Your task to perform on an android device: Add acer predator to the cart on costco.com, then select checkout. Image 0: 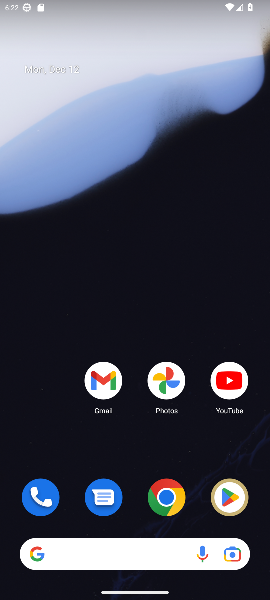
Step 0: press home button
Your task to perform on an android device: Add acer predator to the cart on costco.com, then select checkout. Image 1: 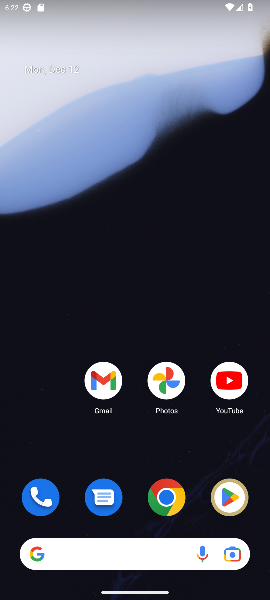
Step 1: click (55, 551)
Your task to perform on an android device: Add acer predator to the cart on costco.com, then select checkout. Image 2: 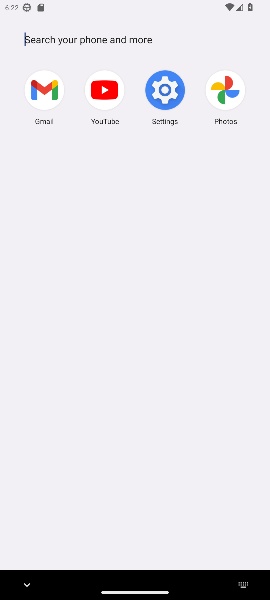
Step 2: press home button
Your task to perform on an android device: Add acer predator to the cart on costco.com, then select checkout. Image 3: 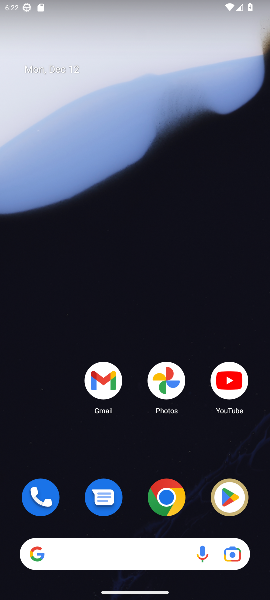
Step 3: drag from (51, 452) to (50, 49)
Your task to perform on an android device: Add acer predator to the cart on costco.com, then select checkout. Image 4: 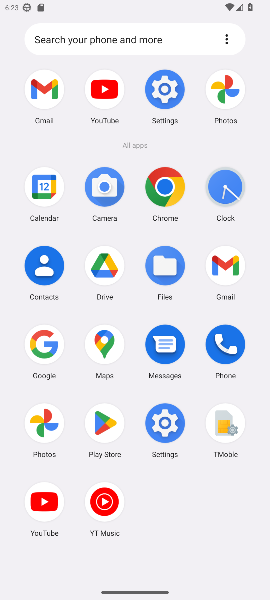
Step 4: click (27, 346)
Your task to perform on an android device: Add acer predator to the cart on costco.com, then select checkout. Image 5: 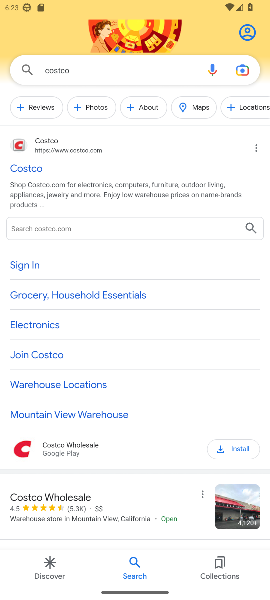
Step 5: click (117, 70)
Your task to perform on an android device: Add acer predator to the cart on costco.com, then select checkout. Image 6: 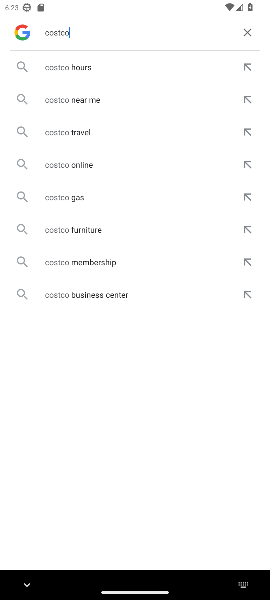
Step 6: click (247, 33)
Your task to perform on an android device: Add acer predator to the cart on costco.com, then select checkout. Image 7: 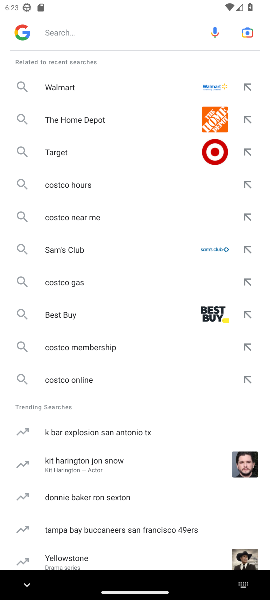
Step 7: type "costco.com"
Your task to perform on an android device: Add acer predator to the cart on costco.com, then select checkout. Image 8: 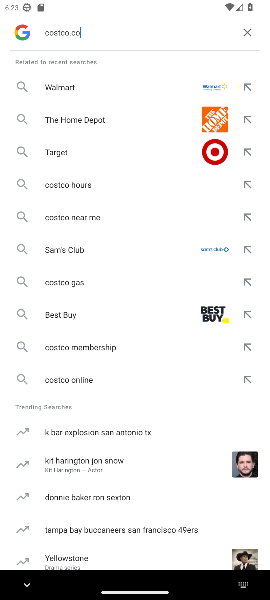
Step 8: press enter
Your task to perform on an android device: Add acer predator to the cart on costco.com, then select checkout. Image 9: 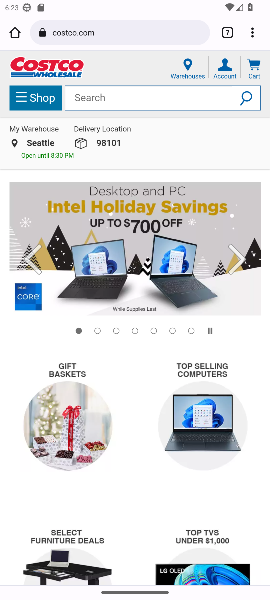
Step 9: click (101, 90)
Your task to perform on an android device: Add acer predator to the cart on costco.com, then select checkout. Image 10: 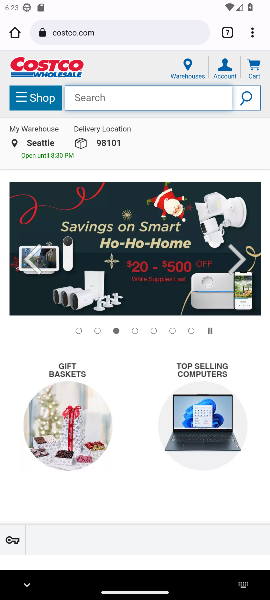
Step 10: type "acer predator"
Your task to perform on an android device: Add acer predator to the cart on costco.com, then select checkout. Image 11: 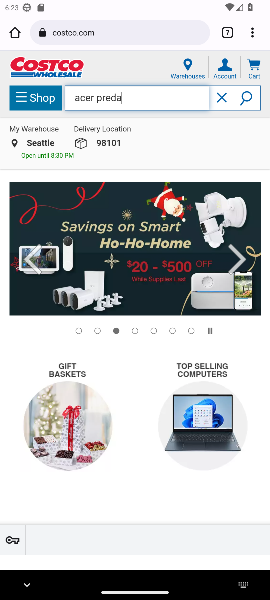
Step 11: press enter
Your task to perform on an android device: Add acer predator to the cart on costco.com, then select checkout. Image 12: 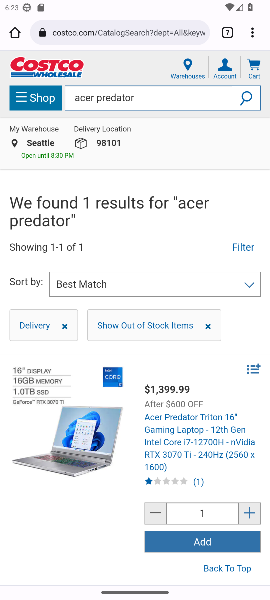
Step 12: drag from (115, 513) to (117, 281)
Your task to perform on an android device: Add acer predator to the cart on costco.com, then select checkout. Image 13: 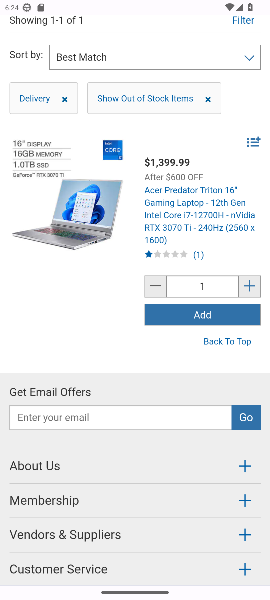
Step 13: click (210, 315)
Your task to perform on an android device: Add acer predator to the cart on costco.com, then select checkout. Image 14: 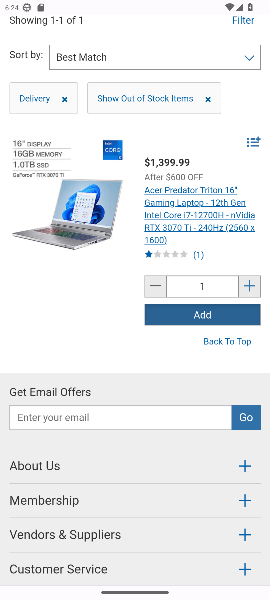
Step 14: task complete